Your task to perform on an android device: Open Wikipedia Image 0: 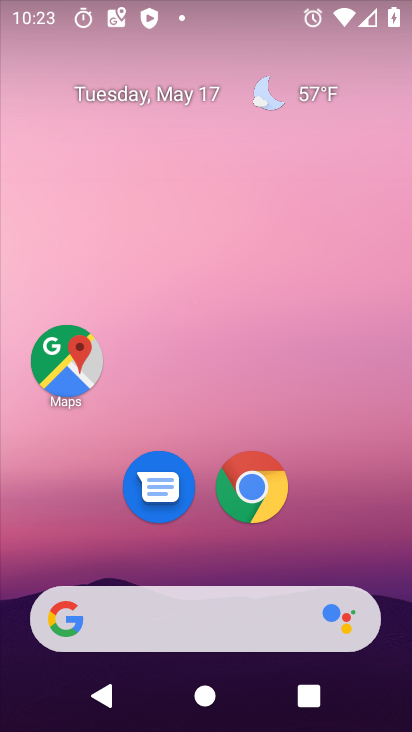
Step 0: click (251, 494)
Your task to perform on an android device: Open Wikipedia Image 1: 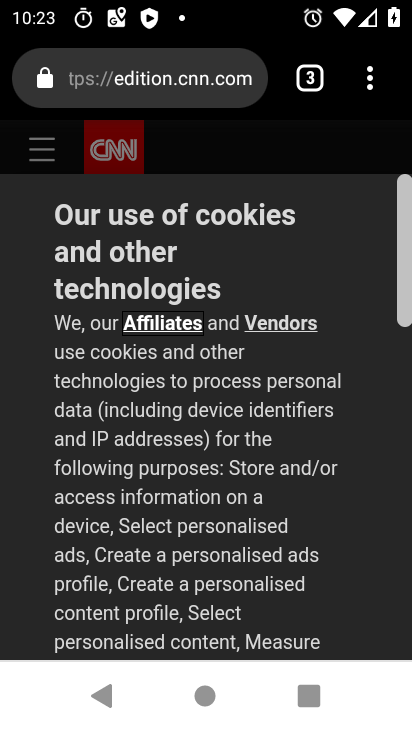
Step 1: click (368, 86)
Your task to perform on an android device: Open Wikipedia Image 2: 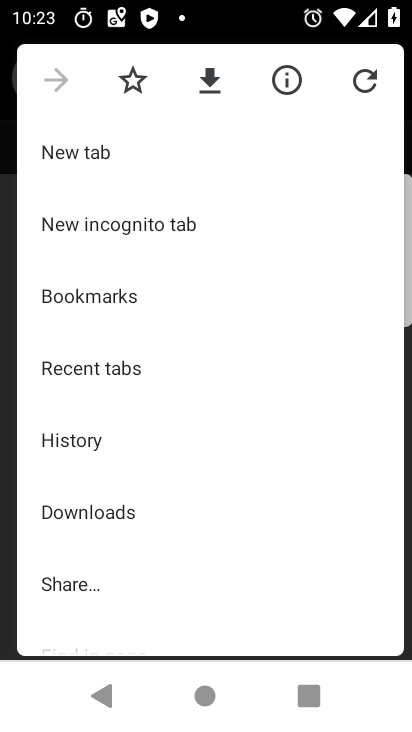
Step 2: click (78, 152)
Your task to perform on an android device: Open Wikipedia Image 3: 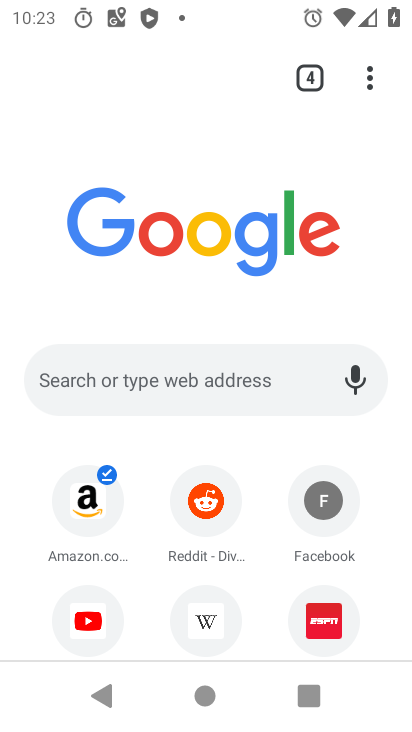
Step 3: click (208, 617)
Your task to perform on an android device: Open Wikipedia Image 4: 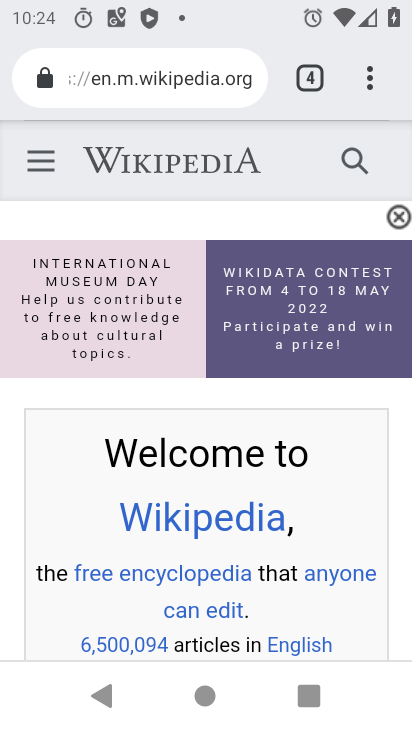
Step 4: task complete